Your task to perform on an android device: uninstall "Gmail" Image 0: 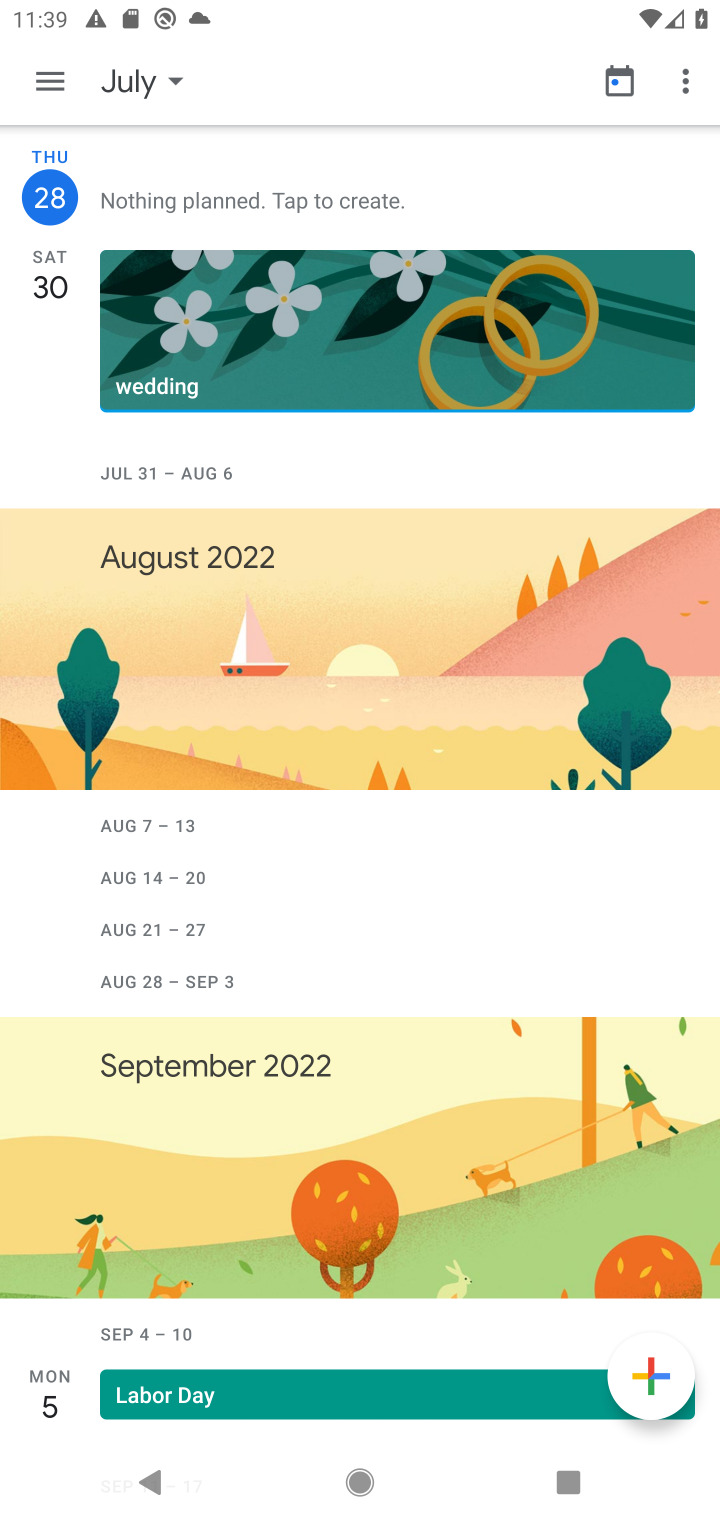
Step 0: press home button
Your task to perform on an android device: uninstall "Gmail" Image 1: 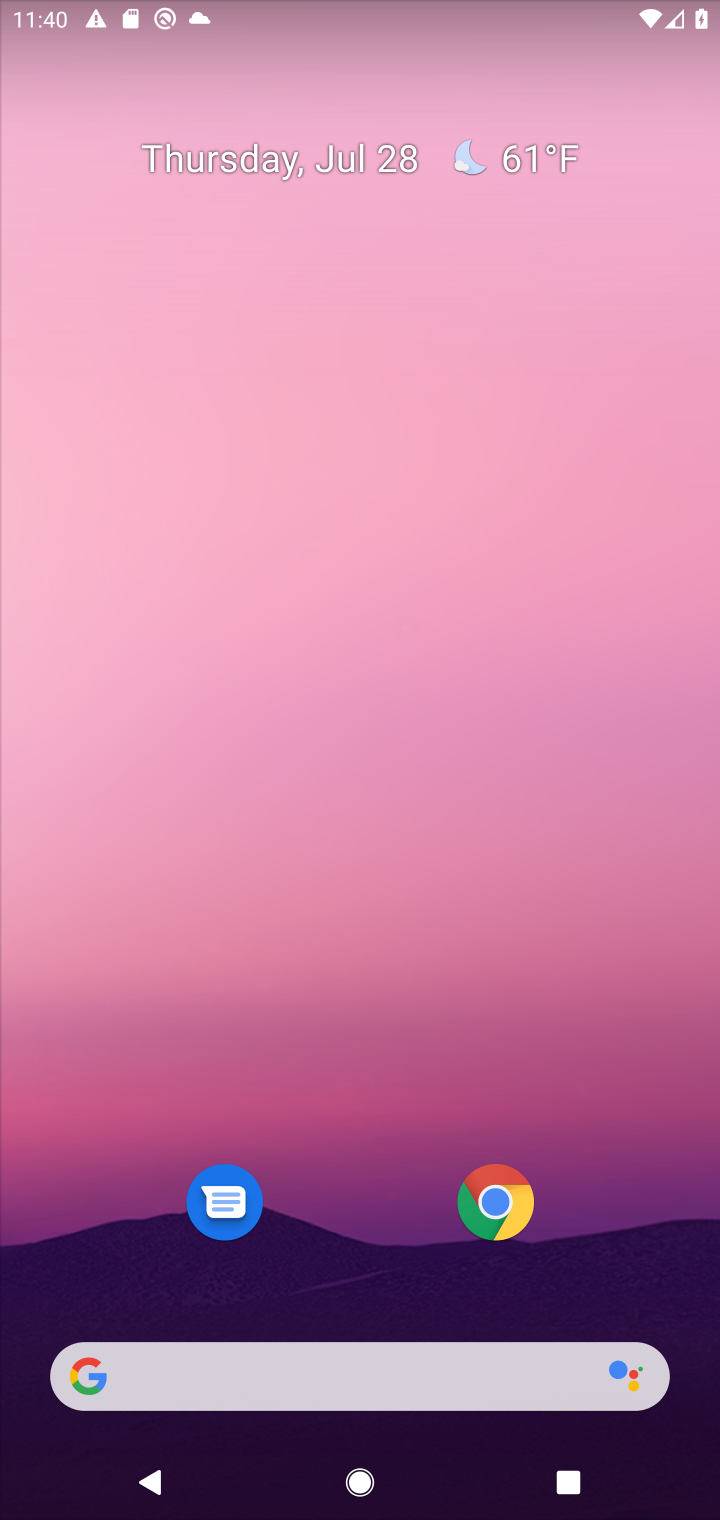
Step 1: drag from (303, 1295) to (443, 106)
Your task to perform on an android device: uninstall "Gmail" Image 2: 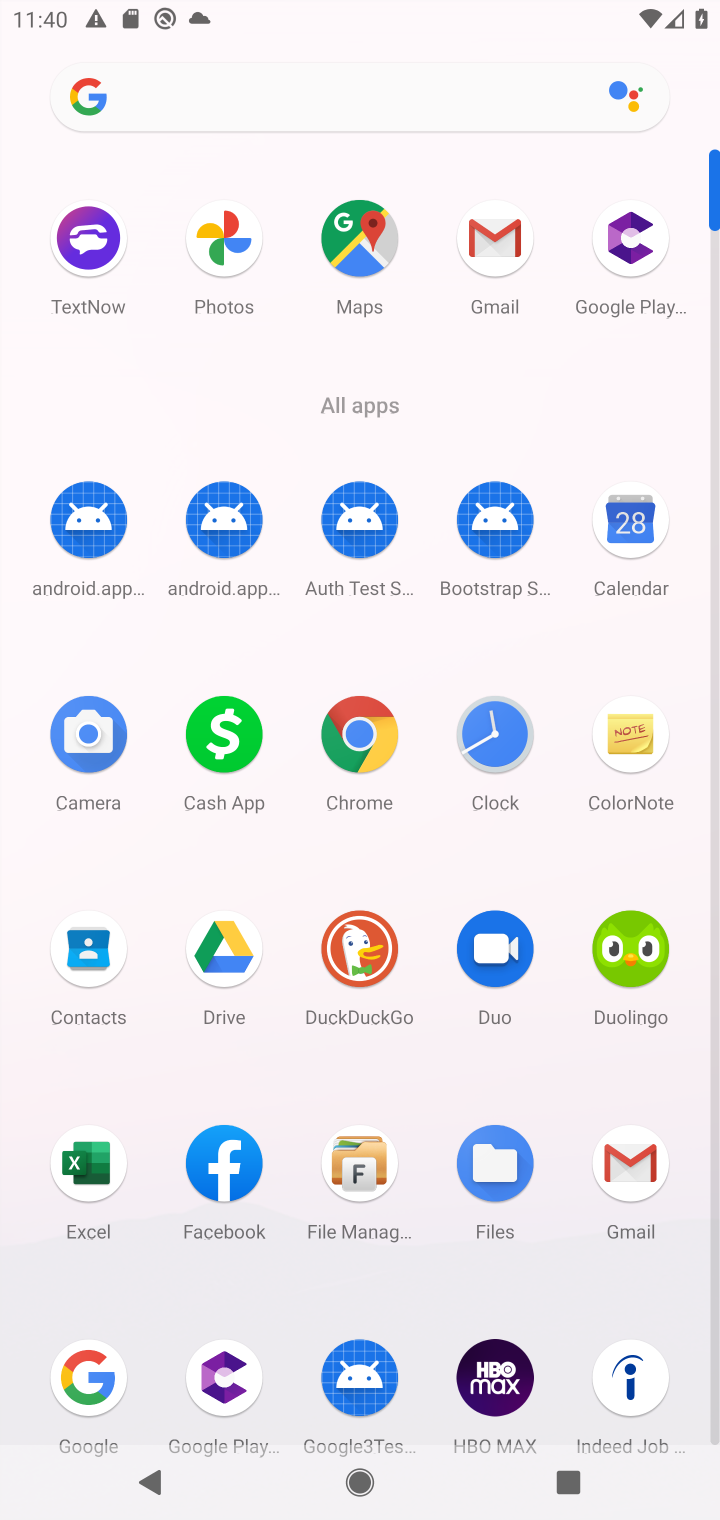
Step 2: click (494, 289)
Your task to perform on an android device: uninstall "Gmail" Image 3: 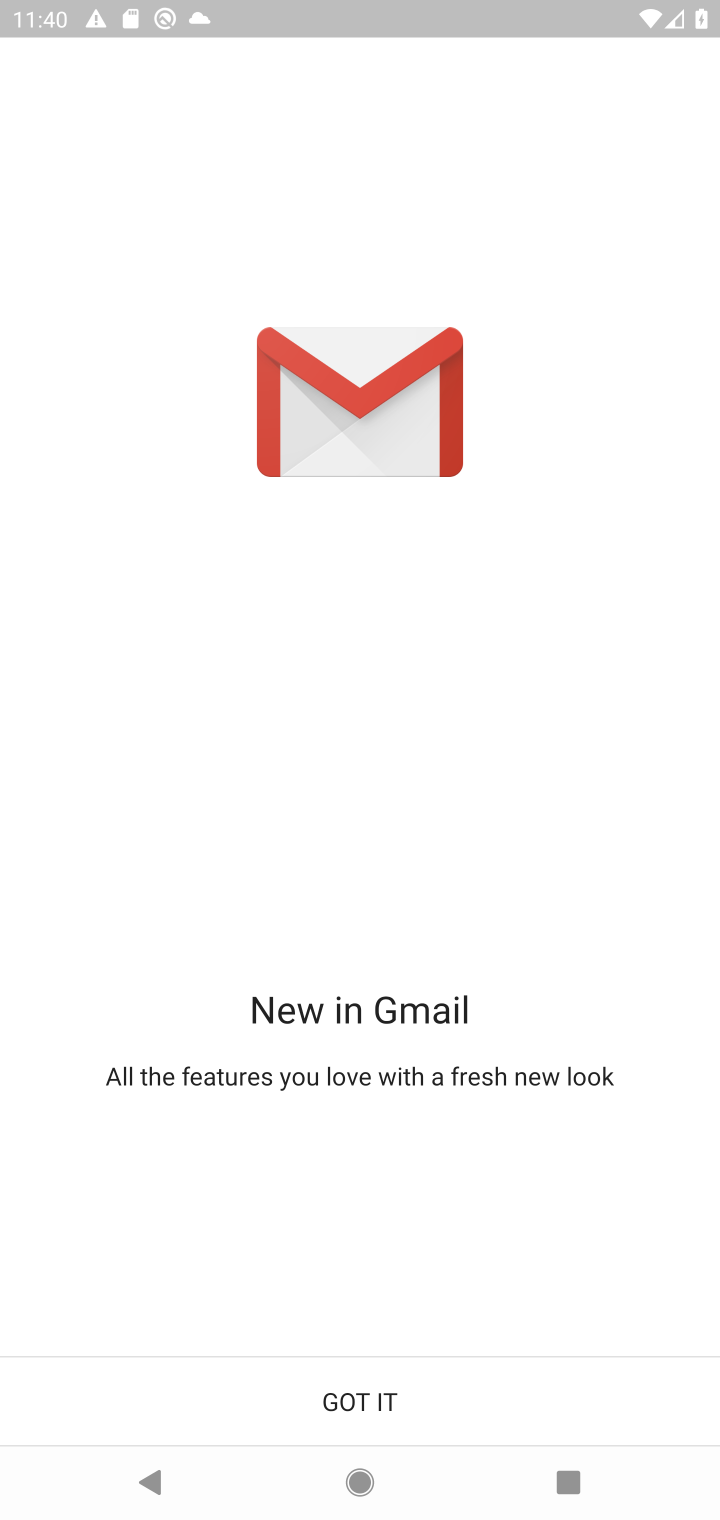
Step 3: press home button
Your task to perform on an android device: uninstall "Gmail" Image 4: 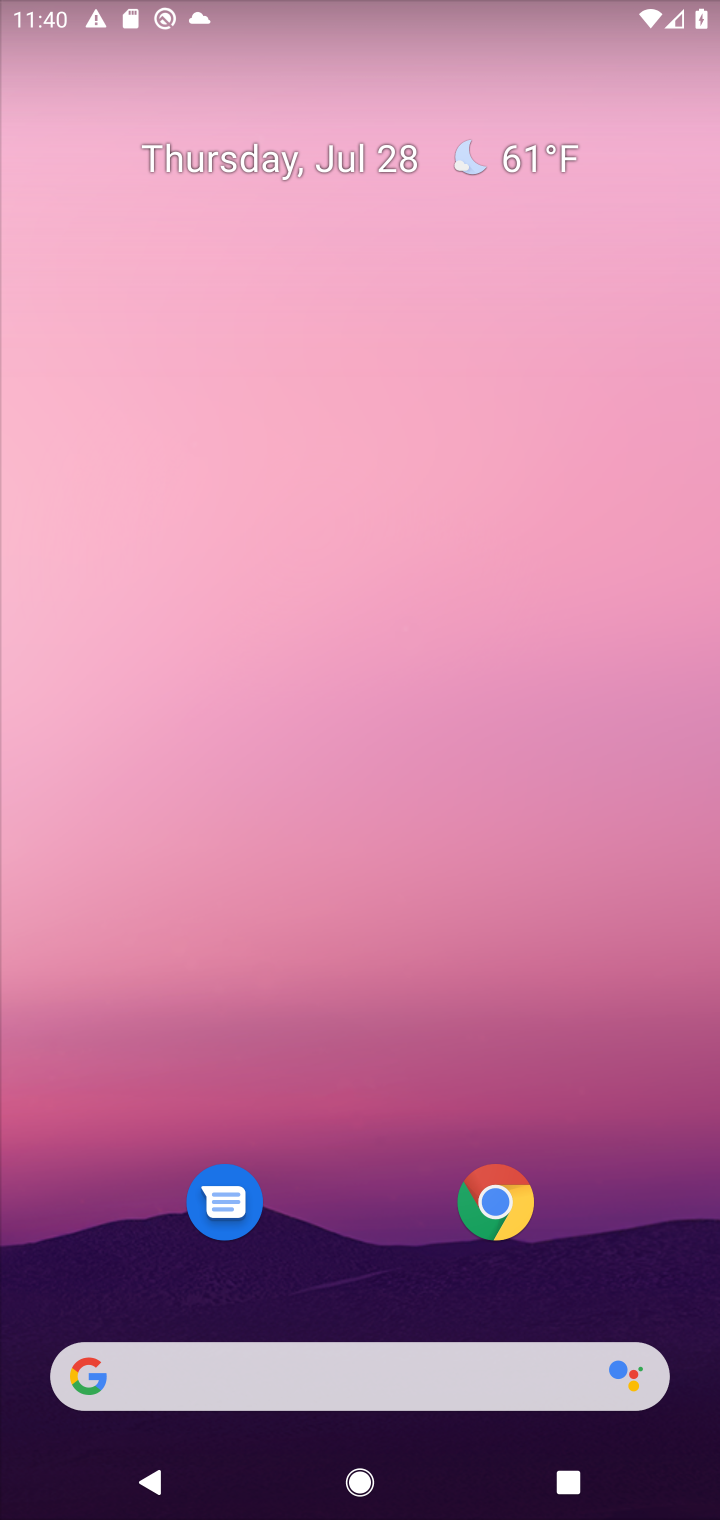
Step 4: drag from (366, 1321) to (405, 39)
Your task to perform on an android device: uninstall "Gmail" Image 5: 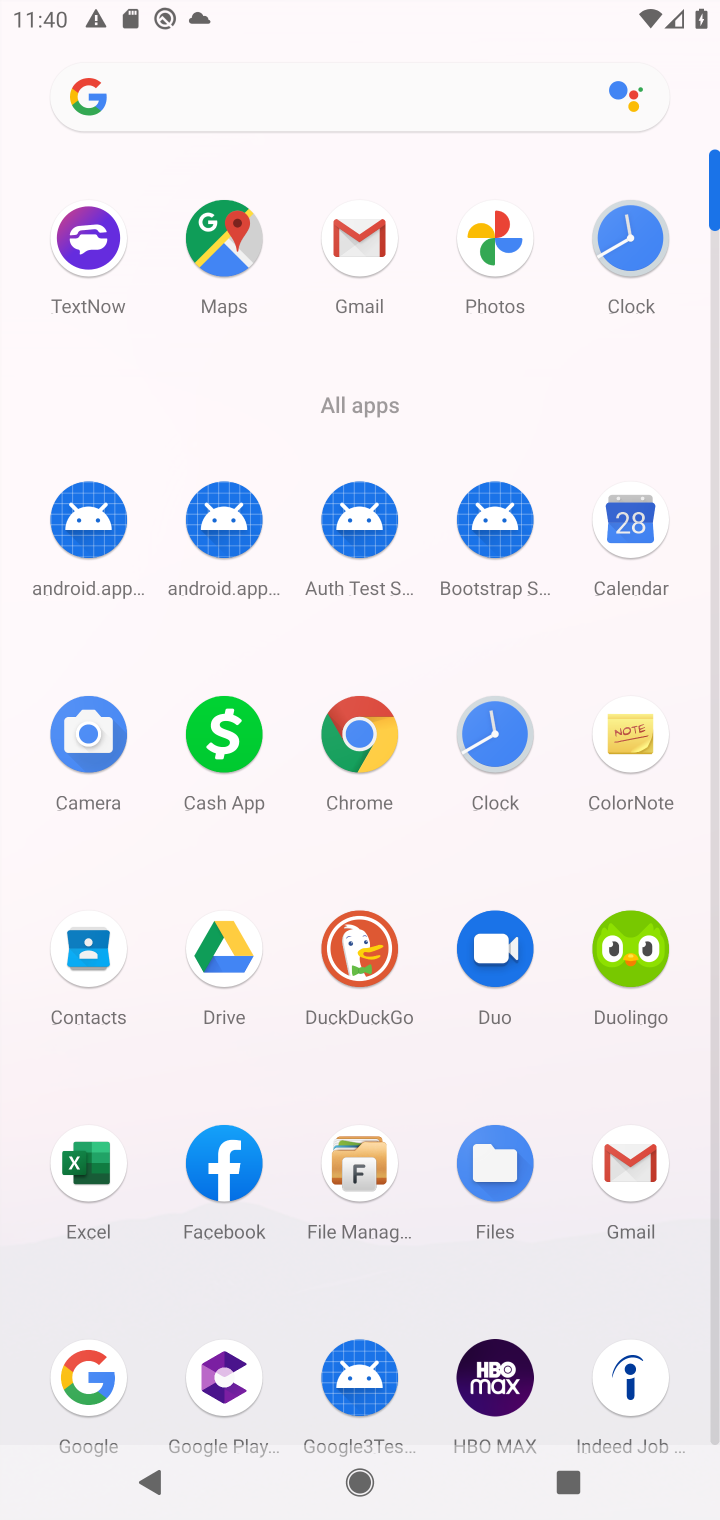
Step 5: click (396, 256)
Your task to perform on an android device: uninstall "Gmail" Image 6: 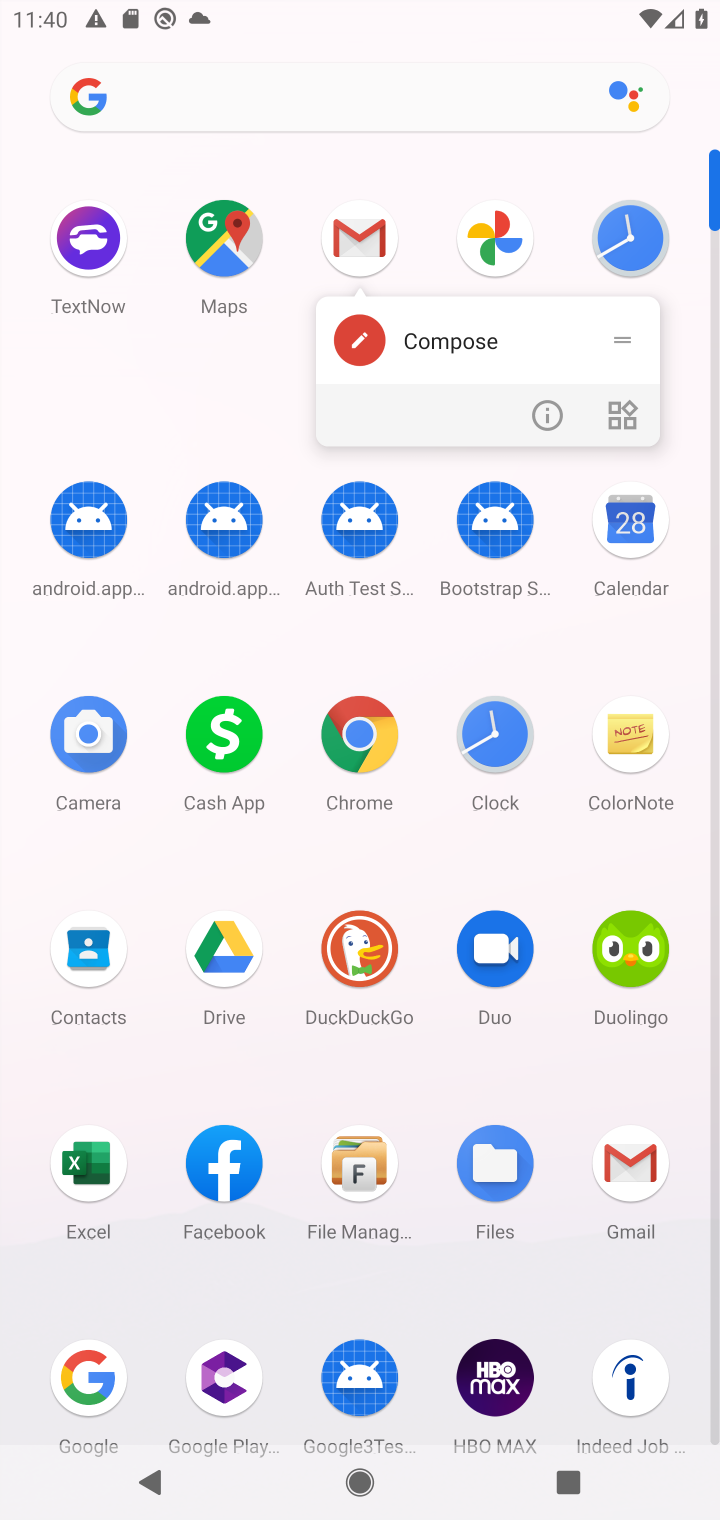
Step 6: click (623, 347)
Your task to perform on an android device: uninstall "Gmail" Image 7: 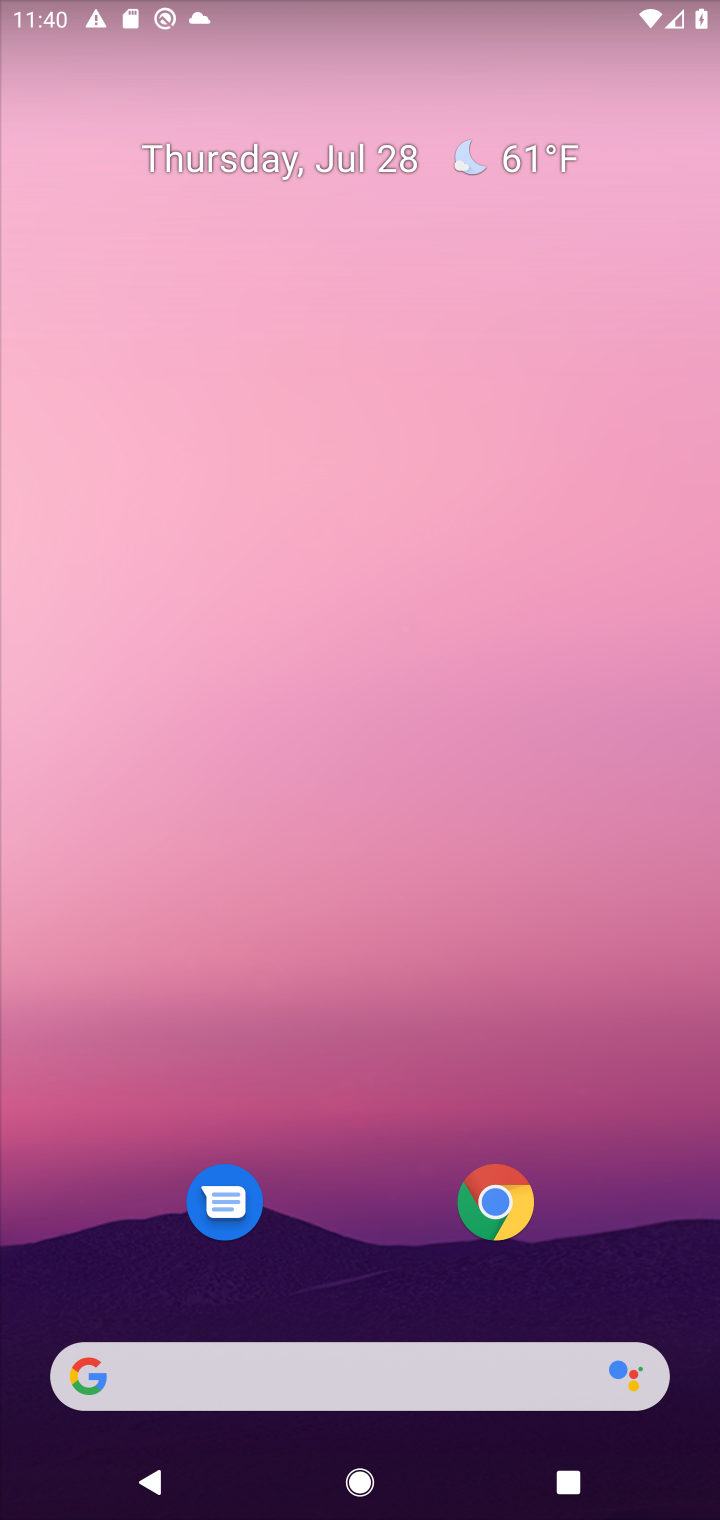
Step 7: task complete